Your task to perform on an android device: open app "The Home Depot" Image 0: 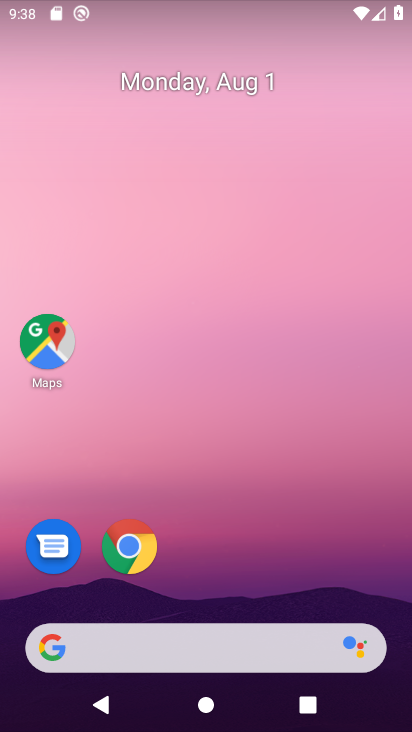
Step 0: press home button
Your task to perform on an android device: open app "The Home Depot" Image 1: 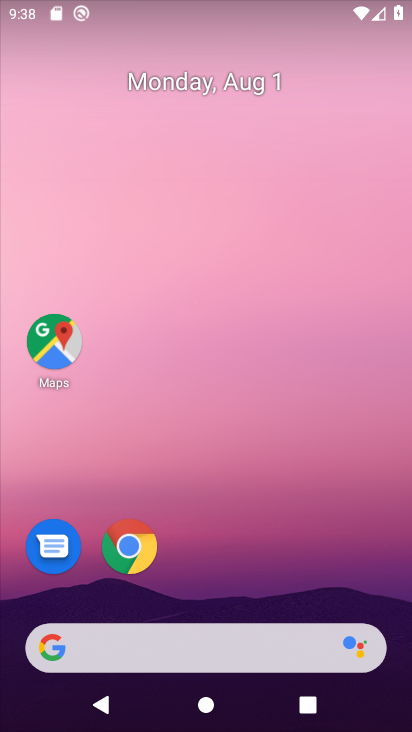
Step 1: drag from (224, 595) to (258, 11)
Your task to perform on an android device: open app "The Home Depot" Image 2: 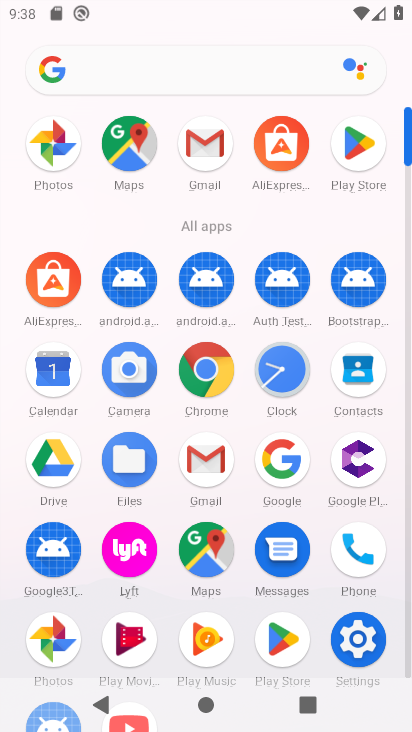
Step 2: click (355, 138)
Your task to perform on an android device: open app "The Home Depot" Image 3: 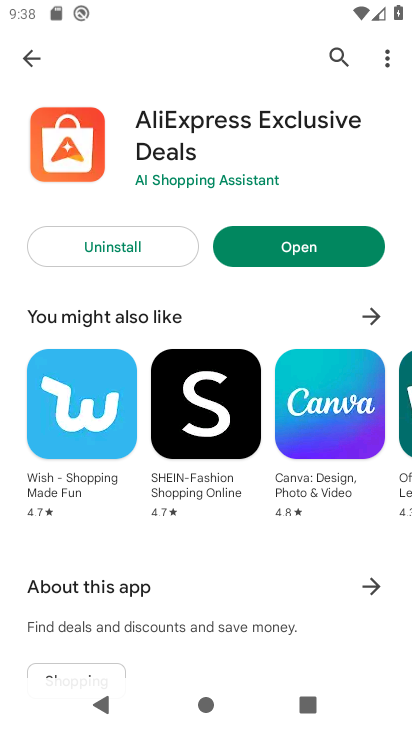
Step 3: click (336, 50)
Your task to perform on an android device: open app "The Home Depot" Image 4: 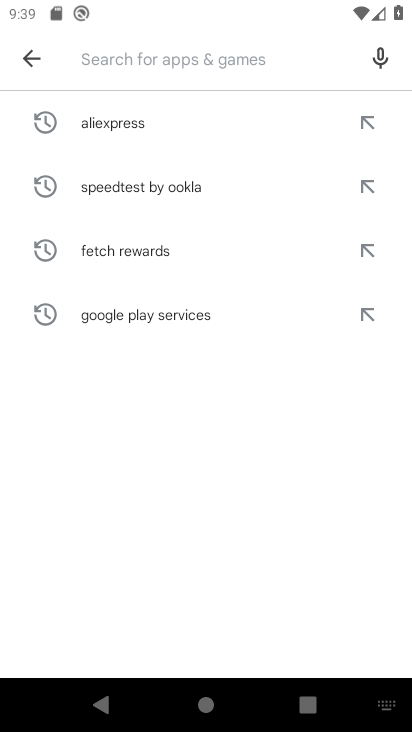
Step 4: type "The Home Depot"
Your task to perform on an android device: open app "The Home Depot" Image 5: 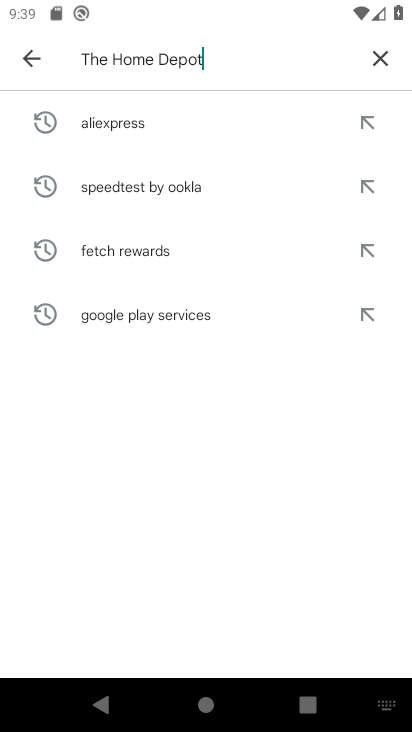
Step 5: type ""
Your task to perform on an android device: open app "The Home Depot" Image 6: 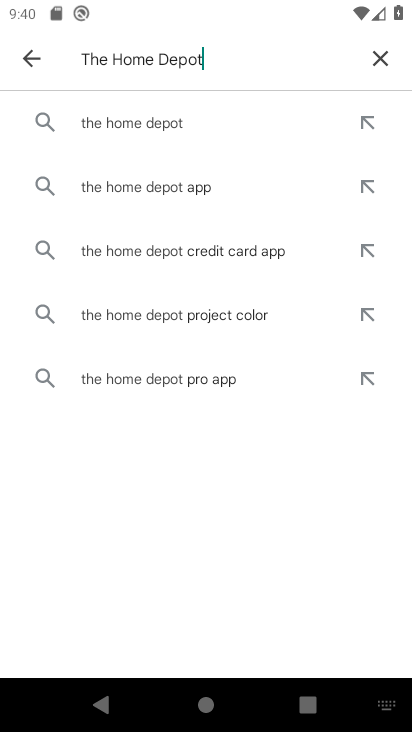
Step 6: click (194, 114)
Your task to perform on an android device: open app "The Home Depot" Image 7: 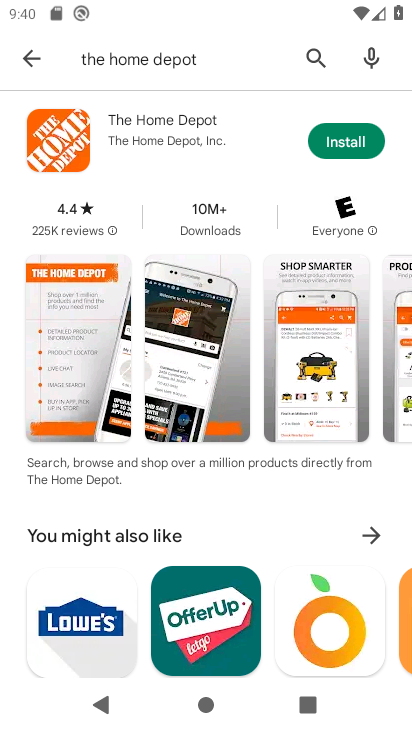
Step 7: task complete